Your task to perform on an android device: move a message to another label in the gmail app Image 0: 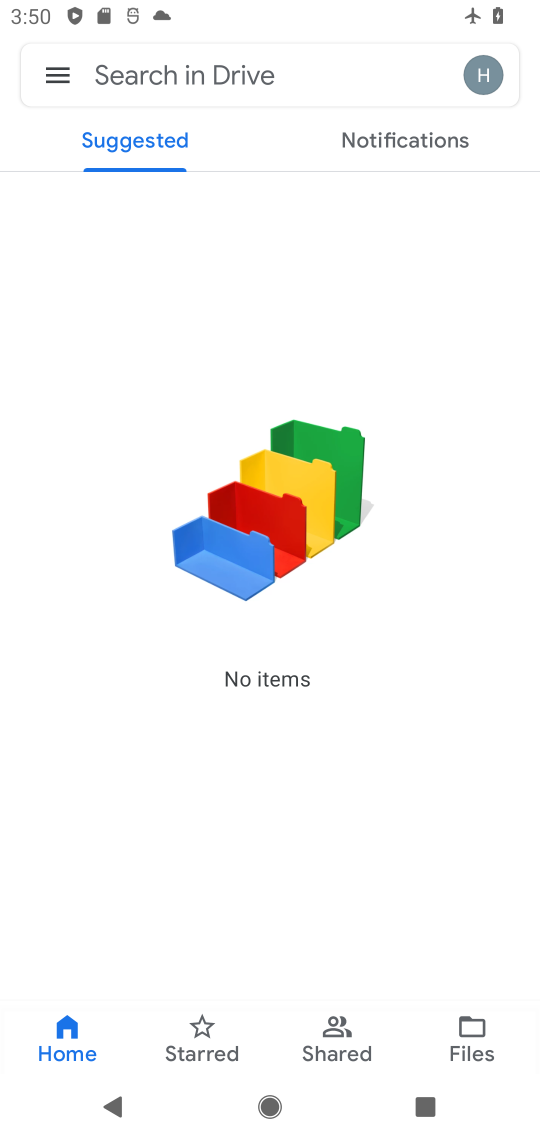
Step 0: press home button
Your task to perform on an android device: move a message to another label in the gmail app Image 1: 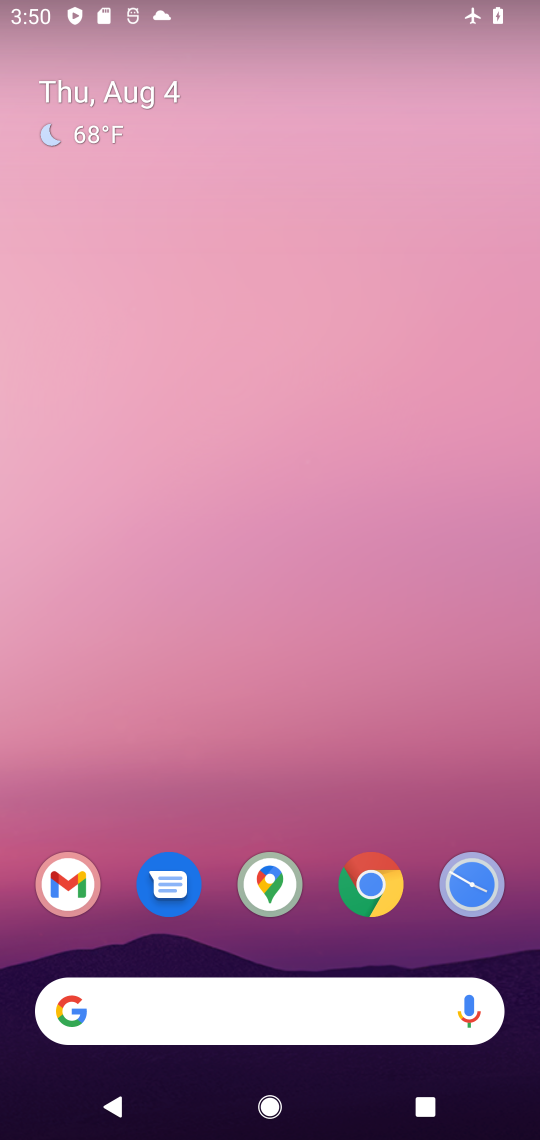
Step 1: drag from (259, 946) to (249, 205)
Your task to perform on an android device: move a message to another label in the gmail app Image 2: 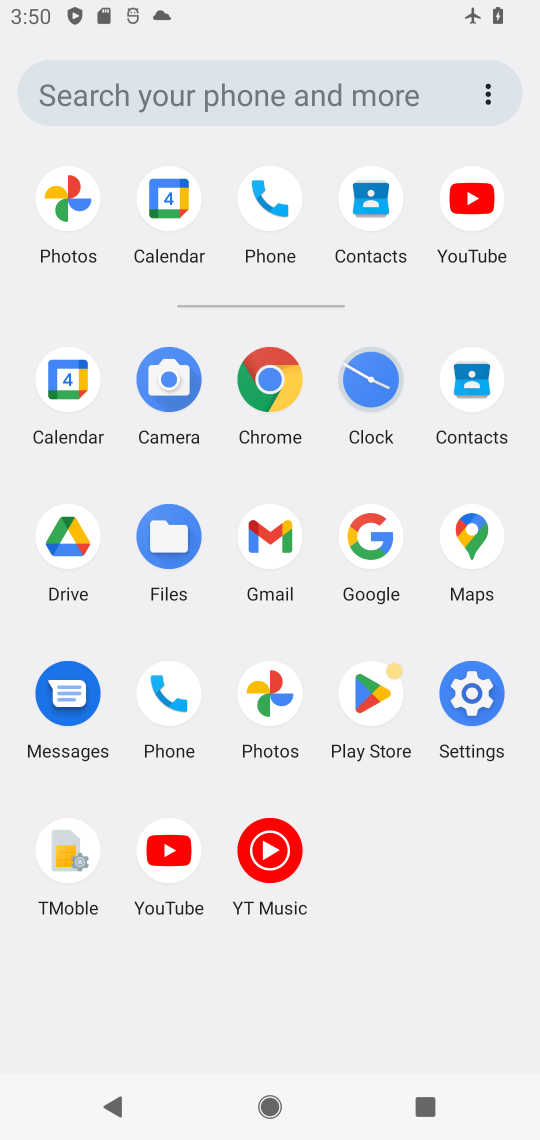
Step 2: click (266, 538)
Your task to perform on an android device: move a message to another label in the gmail app Image 3: 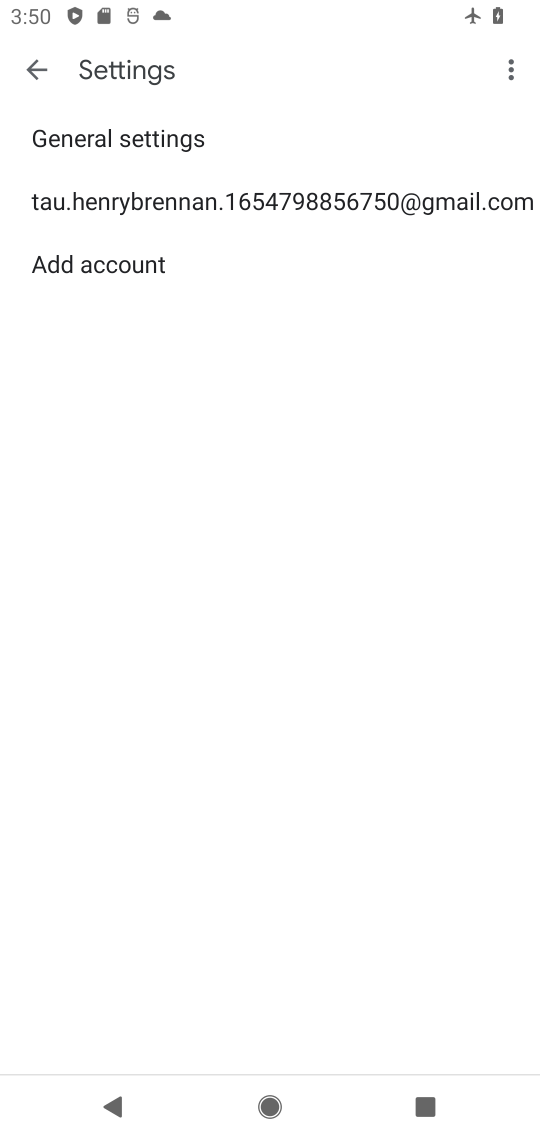
Step 3: click (45, 75)
Your task to perform on an android device: move a message to another label in the gmail app Image 4: 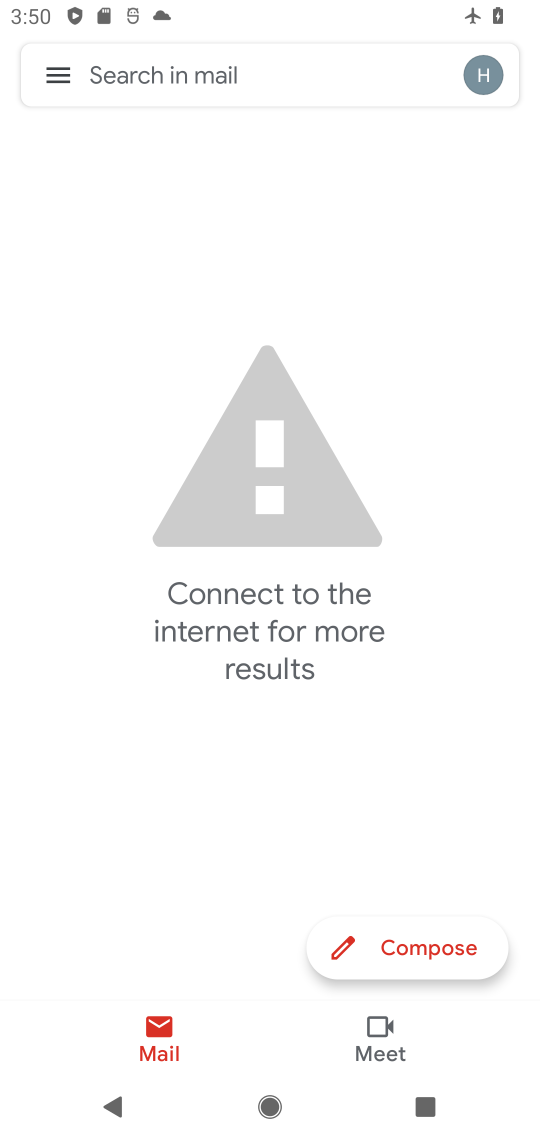
Step 4: click (54, 72)
Your task to perform on an android device: move a message to another label in the gmail app Image 5: 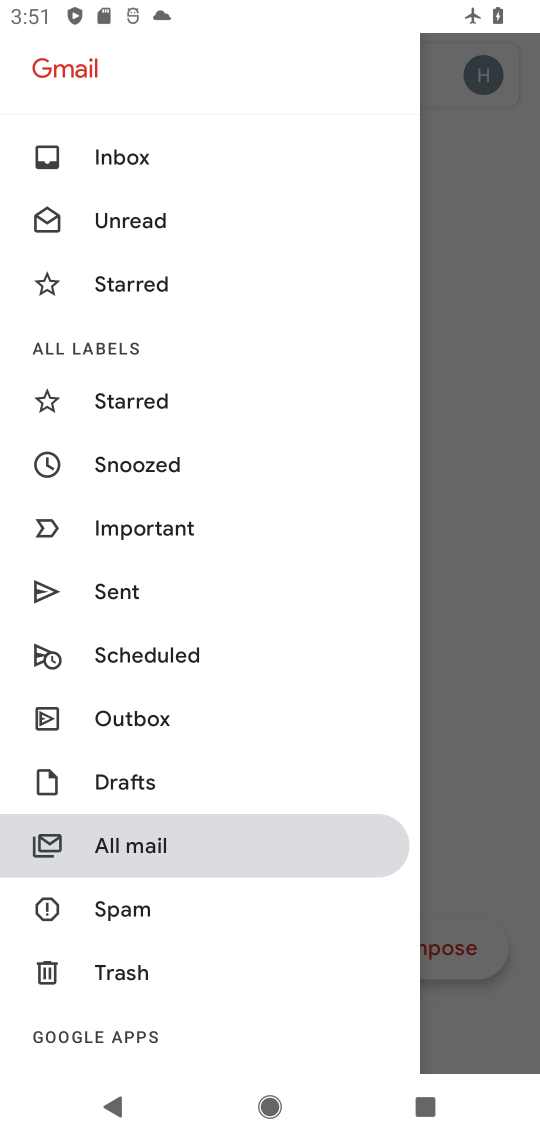
Step 5: click (210, 850)
Your task to perform on an android device: move a message to another label in the gmail app Image 6: 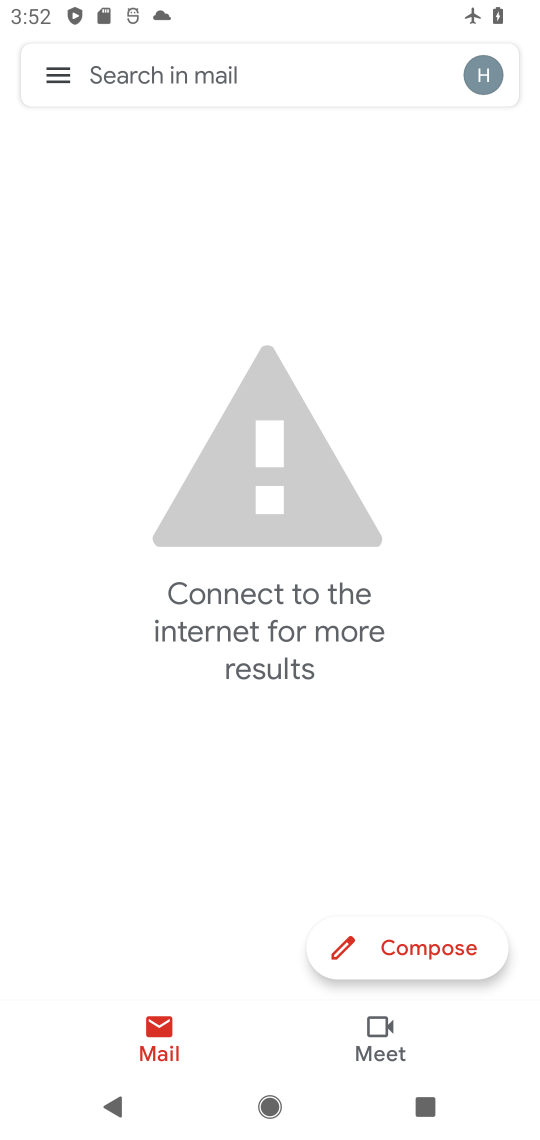
Step 6: task complete